Your task to perform on an android device: toggle notifications settings in the gmail app Image 0: 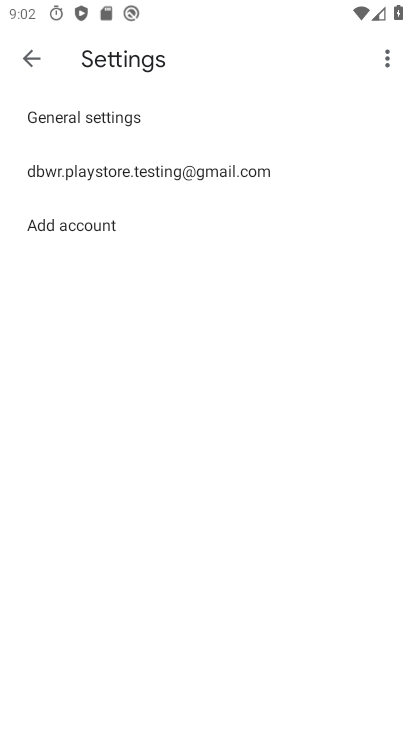
Step 0: click (103, 124)
Your task to perform on an android device: toggle notifications settings in the gmail app Image 1: 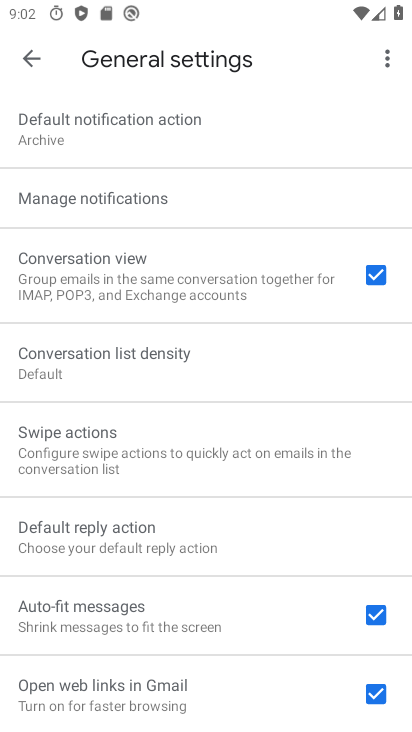
Step 1: click (122, 201)
Your task to perform on an android device: toggle notifications settings in the gmail app Image 2: 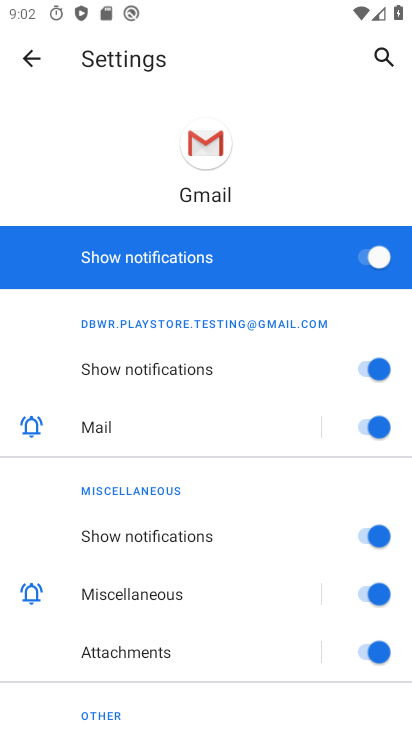
Step 2: click (379, 265)
Your task to perform on an android device: toggle notifications settings in the gmail app Image 3: 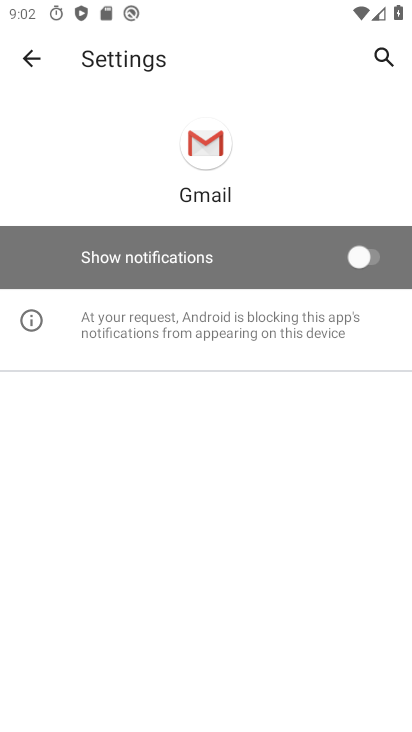
Step 3: click (379, 265)
Your task to perform on an android device: toggle notifications settings in the gmail app Image 4: 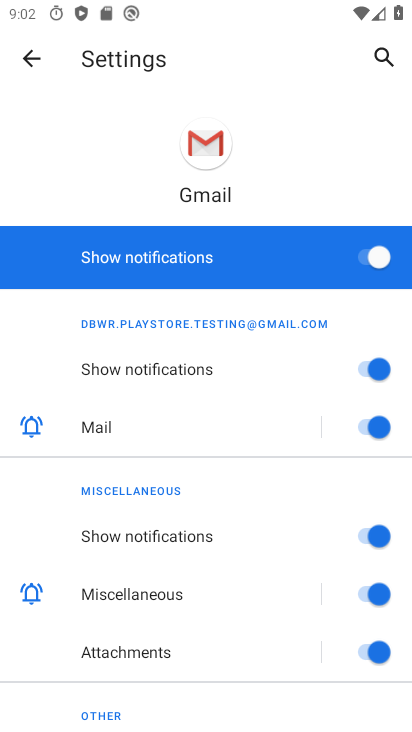
Step 4: task complete